Your task to perform on an android device: Set an alarm for 8am Image 0: 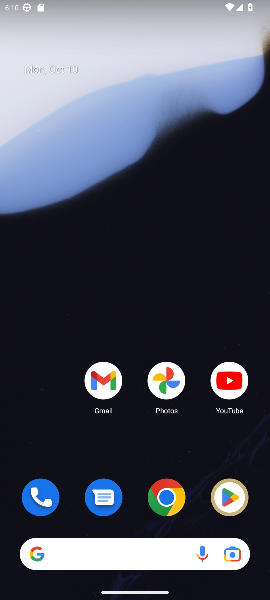
Step 0: drag from (115, 519) to (127, 199)
Your task to perform on an android device: Set an alarm for 8am Image 1: 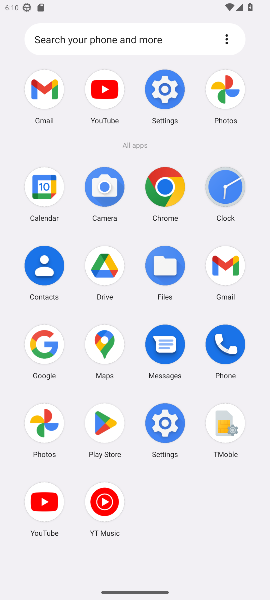
Step 1: click (231, 183)
Your task to perform on an android device: Set an alarm for 8am Image 2: 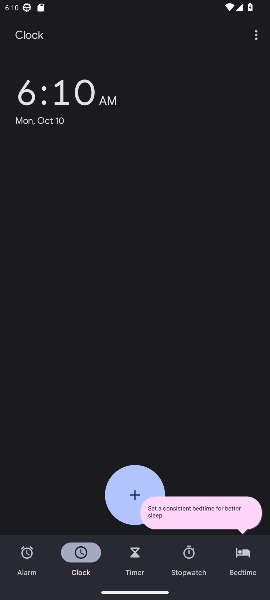
Step 2: click (124, 493)
Your task to perform on an android device: Set an alarm for 8am Image 3: 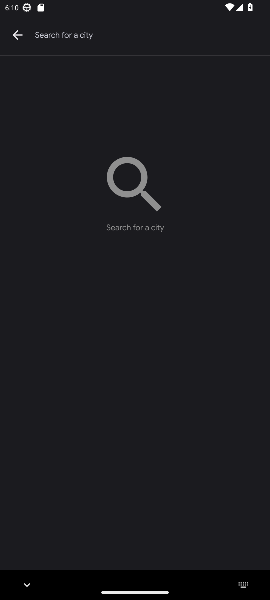
Step 3: click (7, 24)
Your task to perform on an android device: Set an alarm for 8am Image 4: 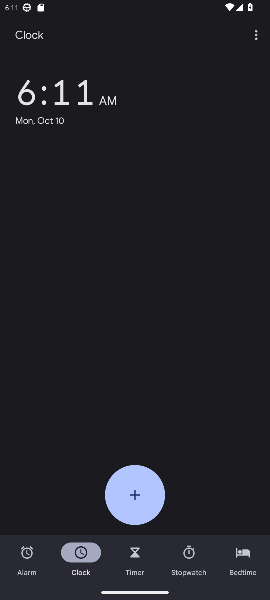
Step 4: click (136, 500)
Your task to perform on an android device: Set an alarm for 8am Image 5: 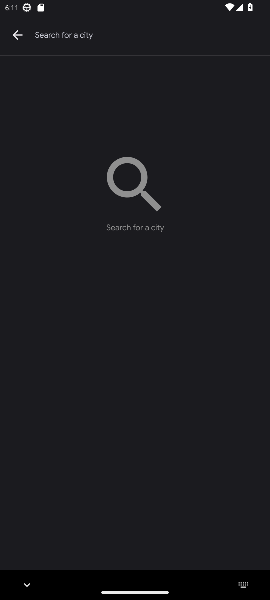
Step 5: click (18, 32)
Your task to perform on an android device: Set an alarm for 8am Image 6: 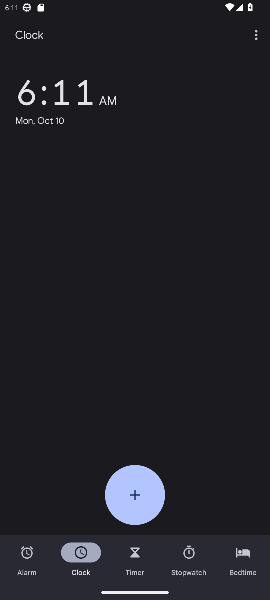
Step 6: click (17, 563)
Your task to perform on an android device: Set an alarm for 8am Image 7: 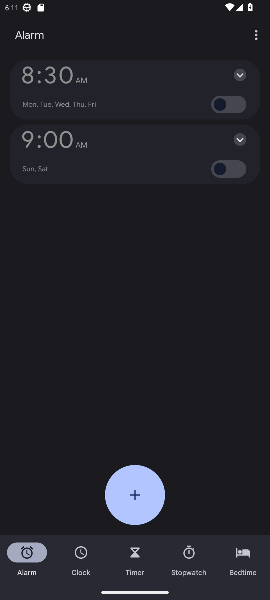
Step 7: click (24, 547)
Your task to perform on an android device: Set an alarm for 8am Image 8: 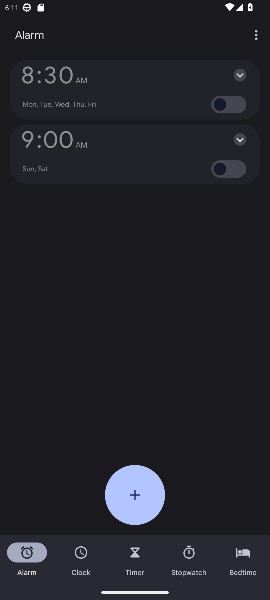
Step 8: click (154, 486)
Your task to perform on an android device: Set an alarm for 8am Image 9: 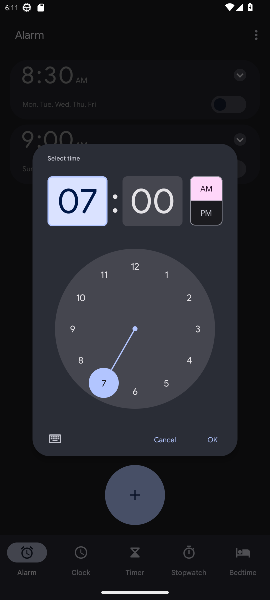
Step 9: click (78, 360)
Your task to perform on an android device: Set an alarm for 8am Image 10: 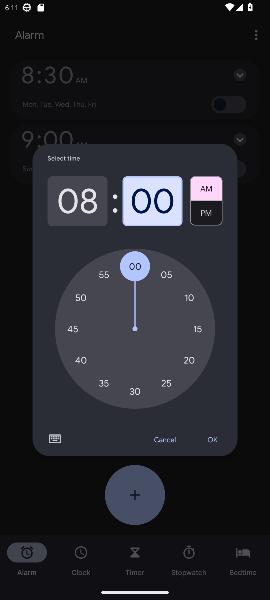
Step 10: click (205, 190)
Your task to perform on an android device: Set an alarm for 8am Image 11: 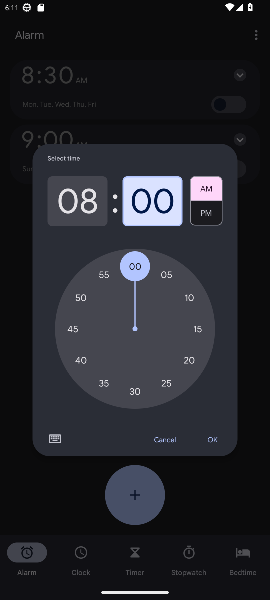
Step 11: click (222, 439)
Your task to perform on an android device: Set an alarm for 8am Image 12: 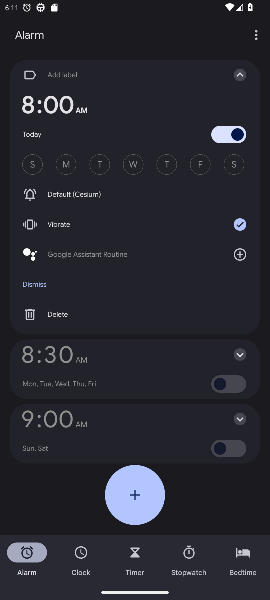
Step 12: click (173, 504)
Your task to perform on an android device: Set an alarm for 8am Image 13: 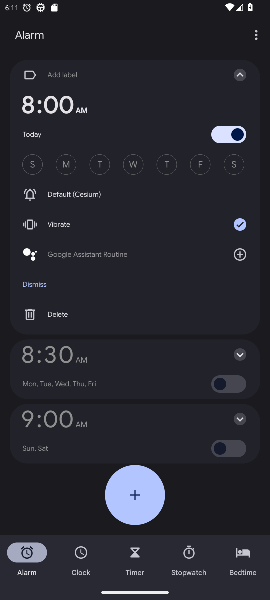
Step 13: click (246, 73)
Your task to perform on an android device: Set an alarm for 8am Image 14: 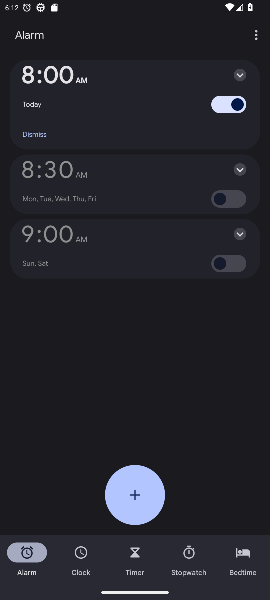
Step 14: task complete